Your task to perform on an android device: allow cookies in the chrome app Image 0: 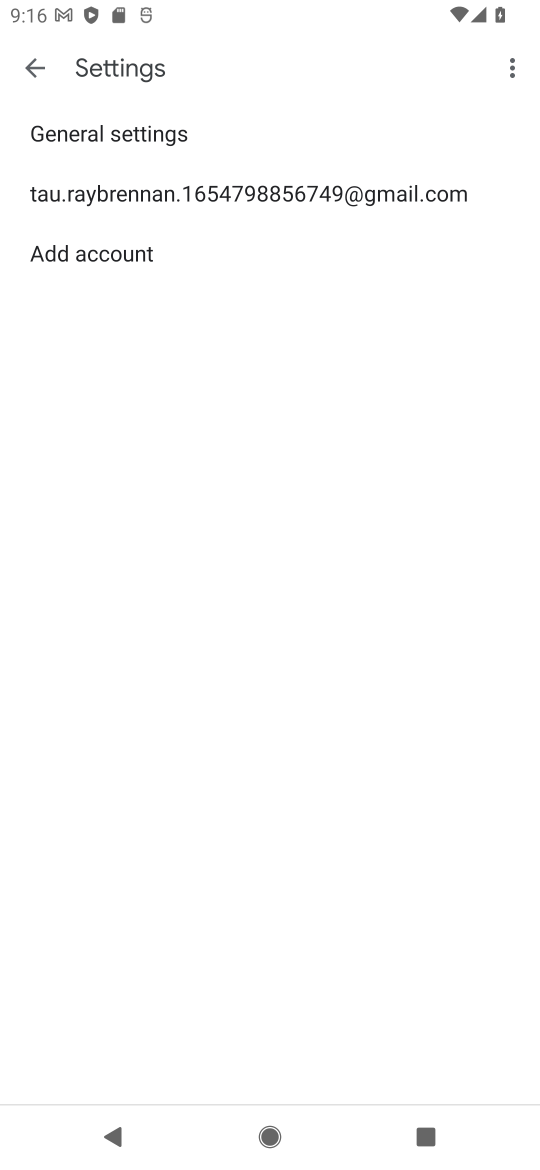
Step 0: press home button
Your task to perform on an android device: allow cookies in the chrome app Image 1: 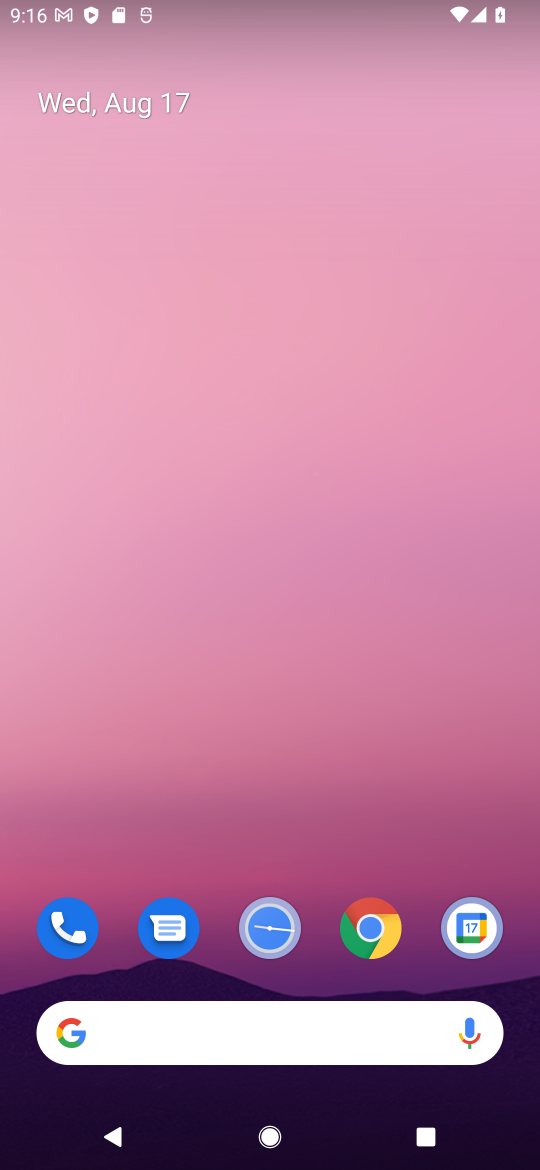
Step 1: click (377, 959)
Your task to perform on an android device: allow cookies in the chrome app Image 2: 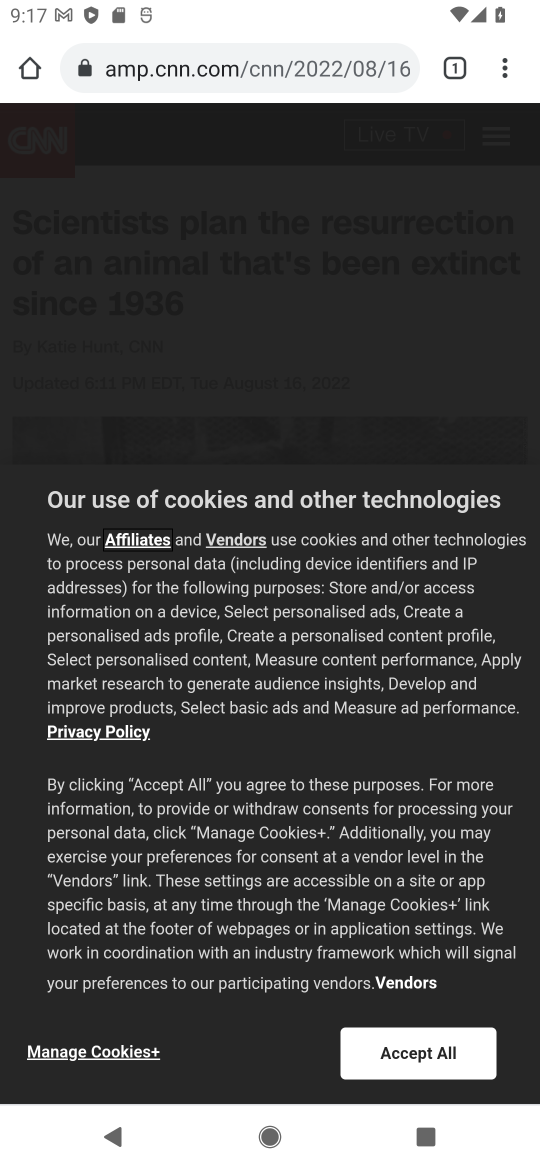
Step 2: click (508, 66)
Your task to perform on an android device: allow cookies in the chrome app Image 3: 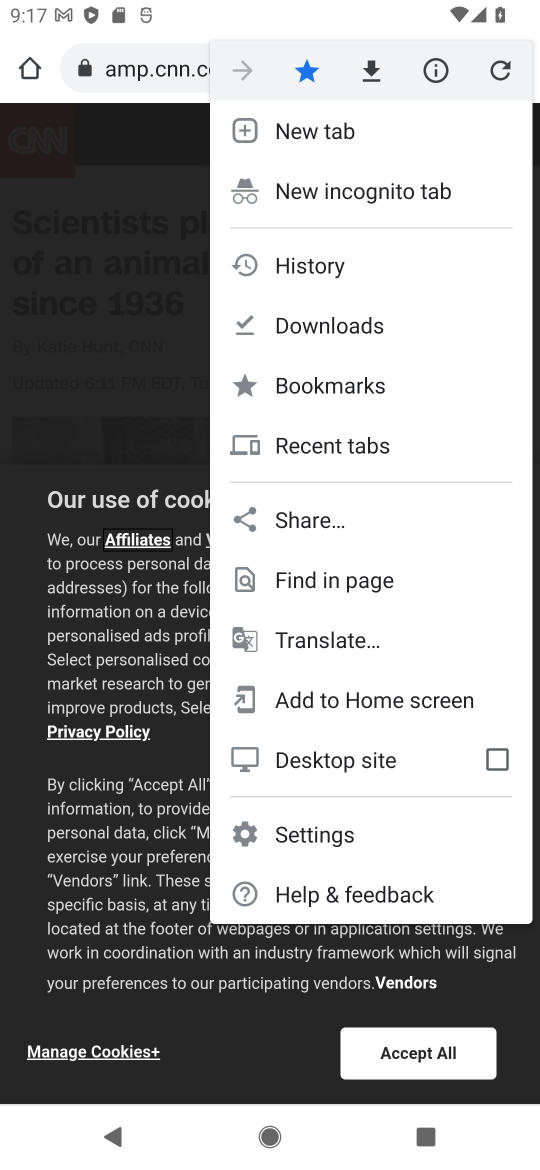
Step 3: click (348, 828)
Your task to perform on an android device: allow cookies in the chrome app Image 4: 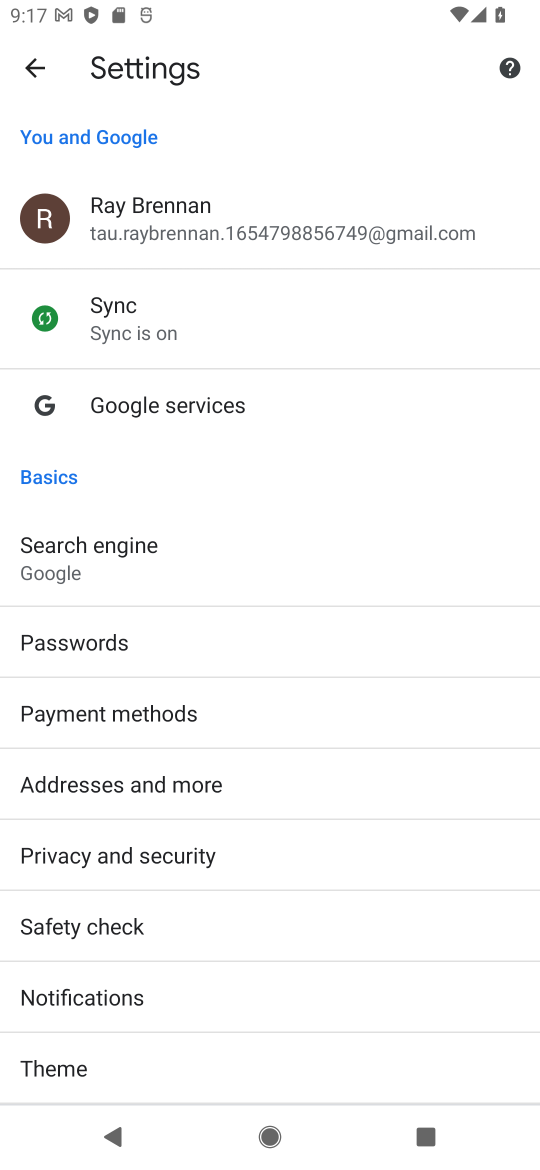
Step 4: drag from (241, 987) to (165, 545)
Your task to perform on an android device: allow cookies in the chrome app Image 5: 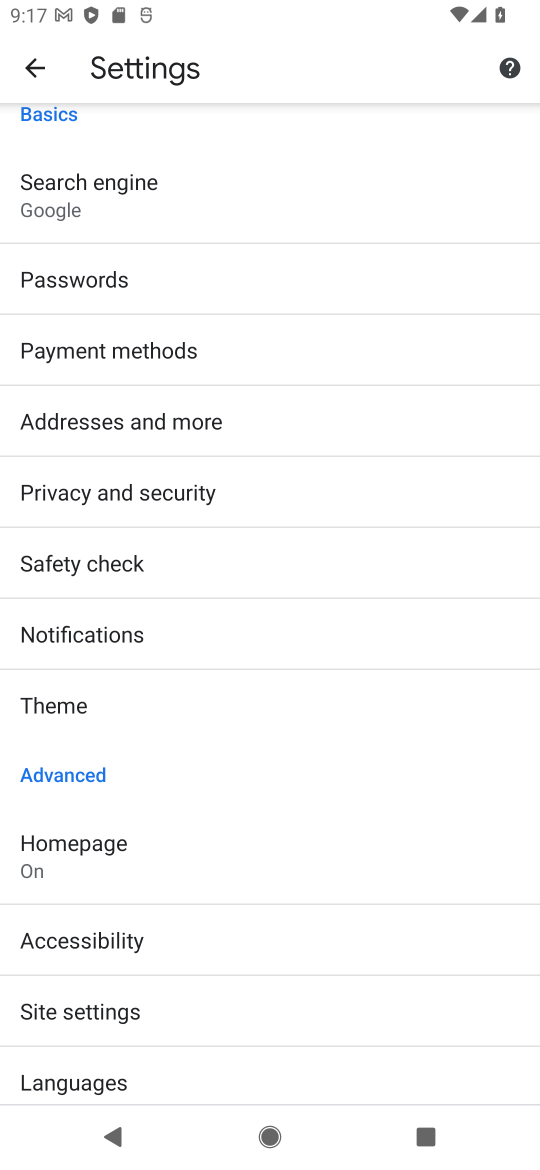
Step 5: click (194, 1003)
Your task to perform on an android device: allow cookies in the chrome app Image 6: 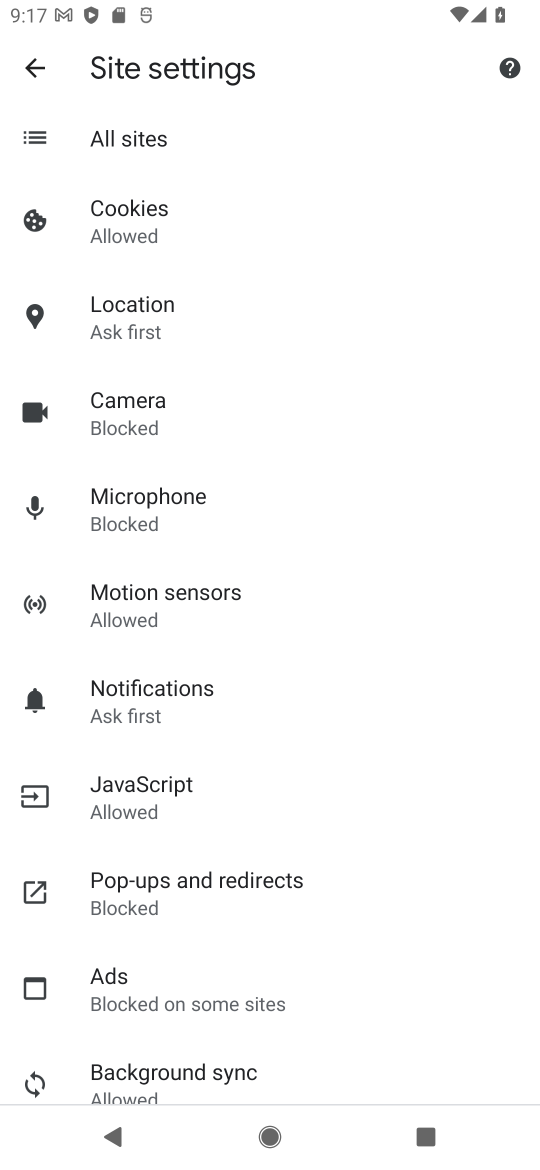
Step 6: click (190, 231)
Your task to perform on an android device: allow cookies in the chrome app Image 7: 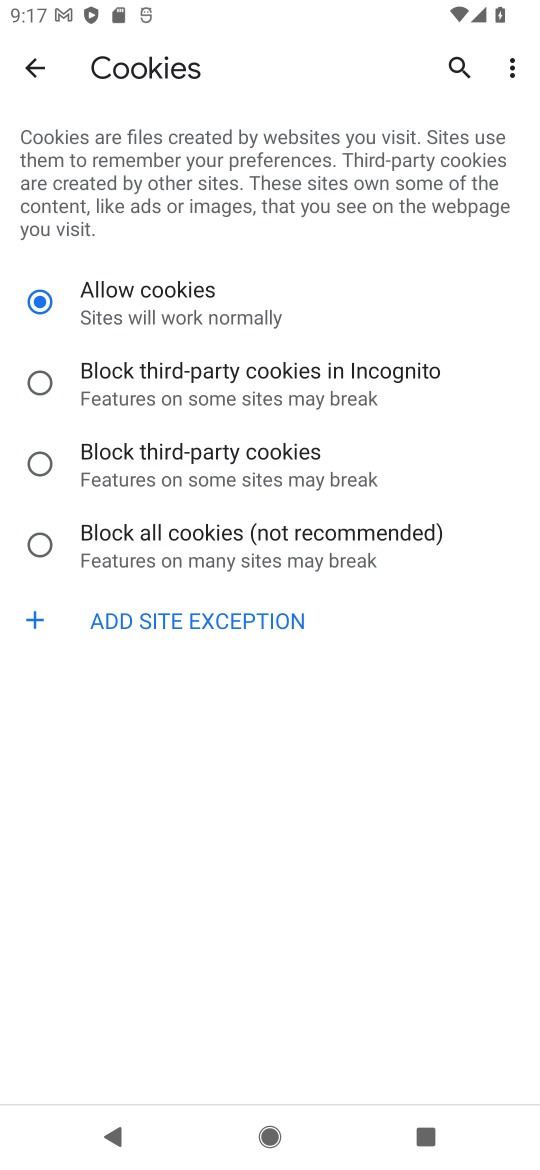
Step 7: task complete